Your task to perform on an android device: Open the Play Movies app and select the watchlist tab. Image 0: 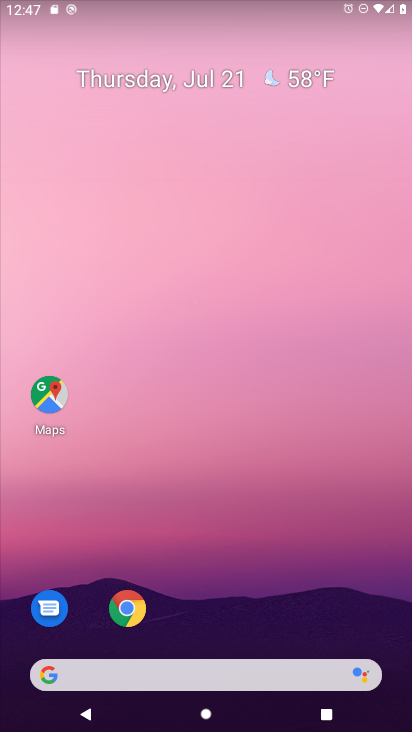
Step 0: press home button
Your task to perform on an android device: Open the Play Movies app and select the watchlist tab. Image 1: 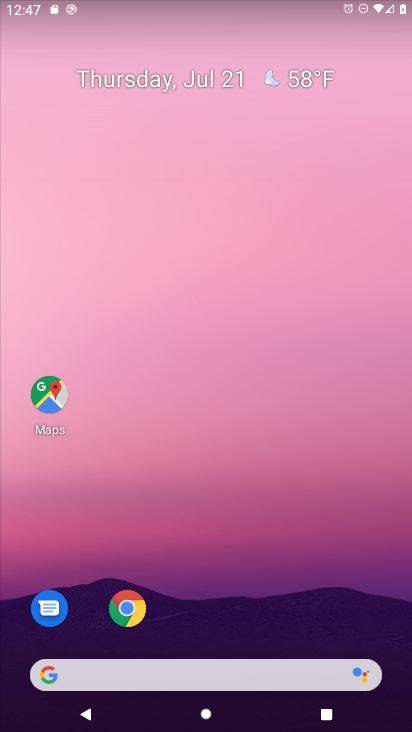
Step 1: drag from (162, 626) to (109, 67)
Your task to perform on an android device: Open the Play Movies app and select the watchlist tab. Image 2: 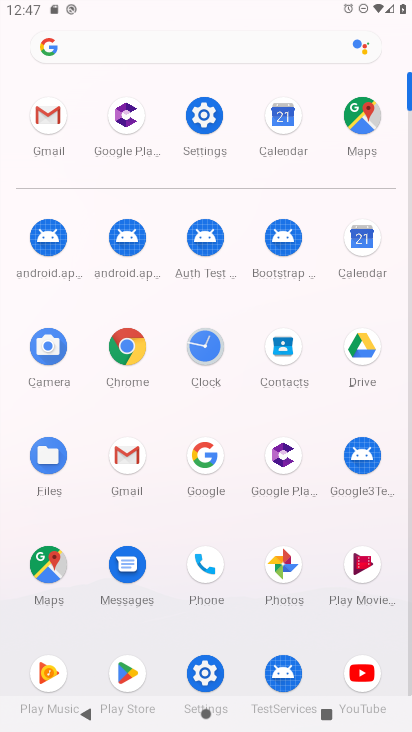
Step 2: click (356, 561)
Your task to perform on an android device: Open the Play Movies app and select the watchlist tab. Image 3: 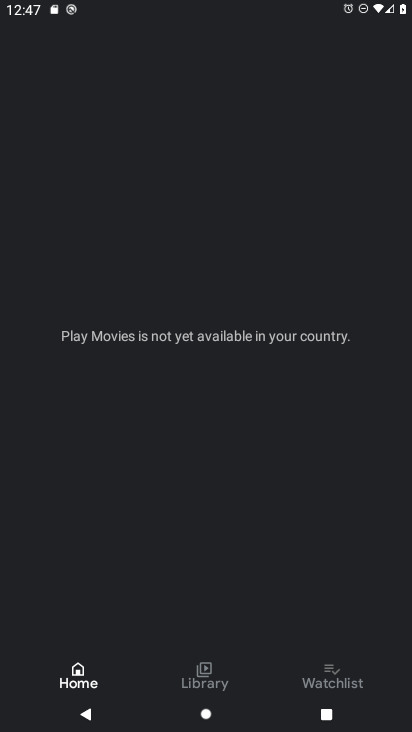
Step 3: click (331, 685)
Your task to perform on an android device: Open the Play Movies app and select the watchlist tab. Image 4: 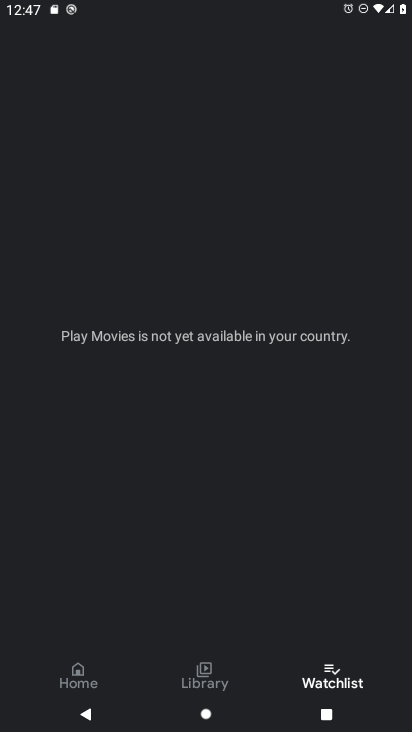
Step 4: task complete